Your task to perform on an android device: toggle notification dots Image 0: 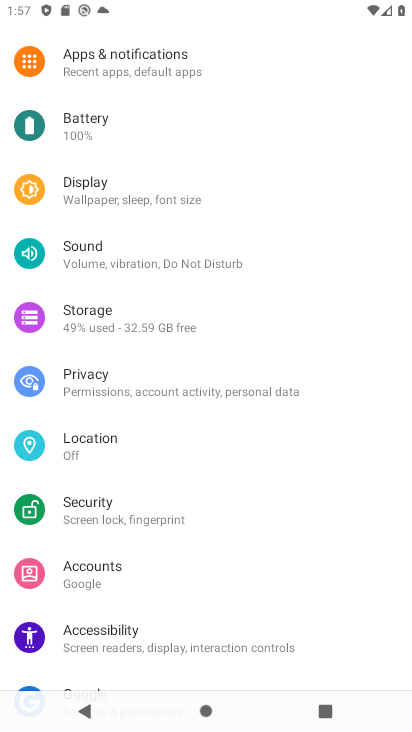
Step 0: click (134, 77)
Your task to perform on an android device: toggle notification dots Image 1: 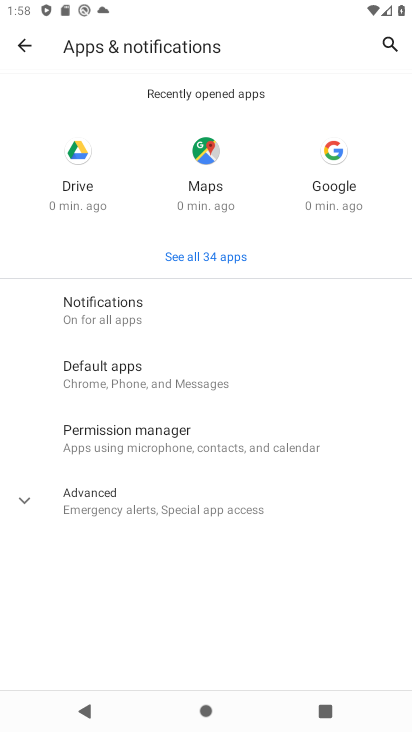
Step 1: click (120, 315)
Your task to perform on an android device: toggle notification dots Image 2: 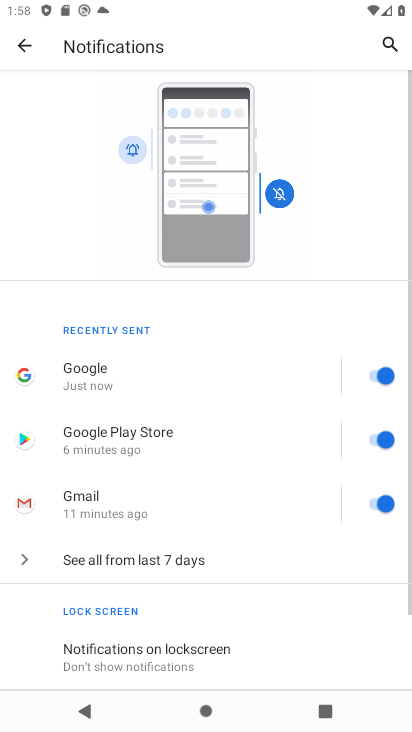
Step 2: drag from (161, 615) to (220, 147)
Your task to perform on an android device: toggle notification dots Image 3: 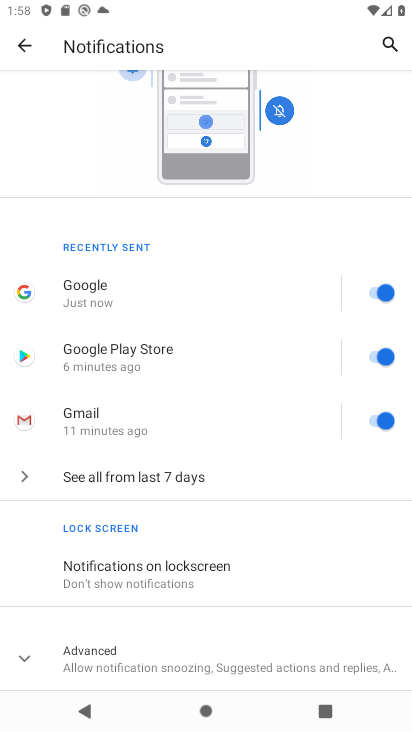
Step 3: click (124, 670)
Your task to perform on an android device: toggle notification dots Image 4: 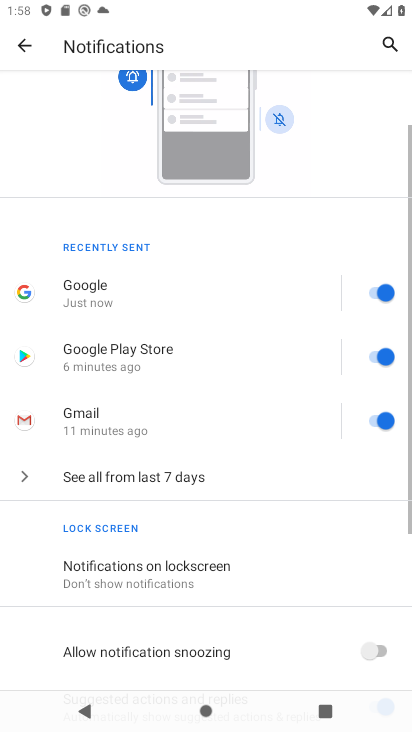
Step 4: drag from (166, 612) to (188, 216)
Your task to perform on an android device: toggle notification dots Image 5: 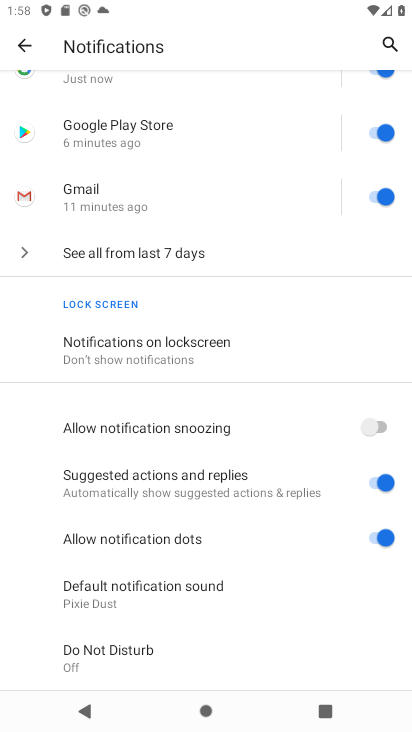
Step 5: click (365, 539)
Your task to perform on an android device: toggle notification dots Image 6: 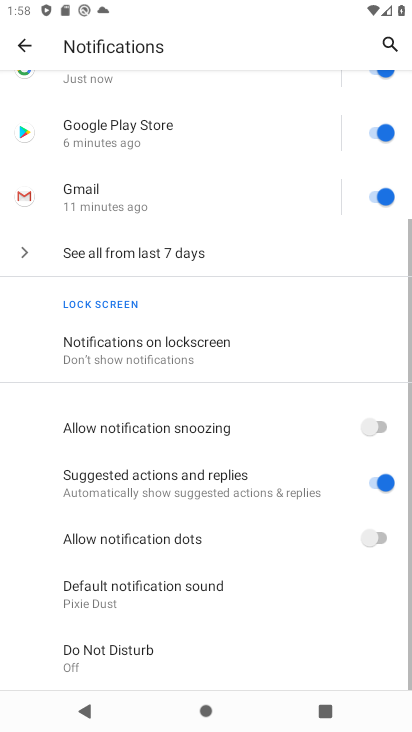
Step 6: task complete